Your task to perform on an android device: clear all cookies in the chrome app Image 0: 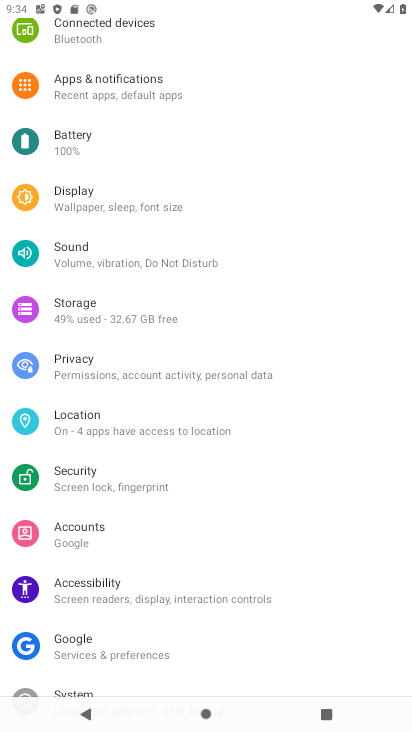
Step 0: task complete